Your task to perform on an android device: Toggle the flashlight Image 0: 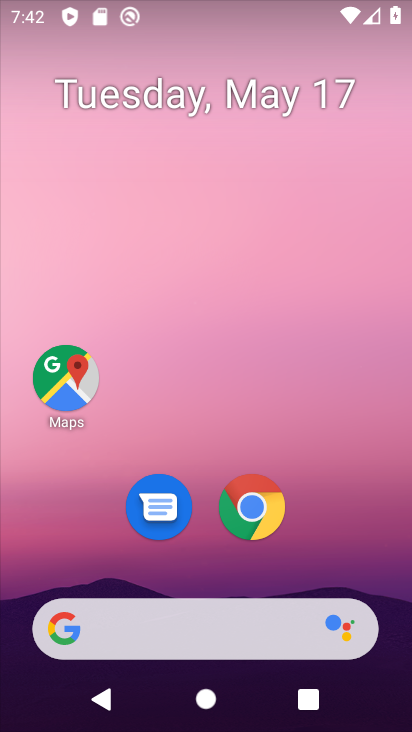
Step 0: drag from (280, 684) to (280, 79)
Your task to perform on an android device: Toggle the flashlight Image 1: 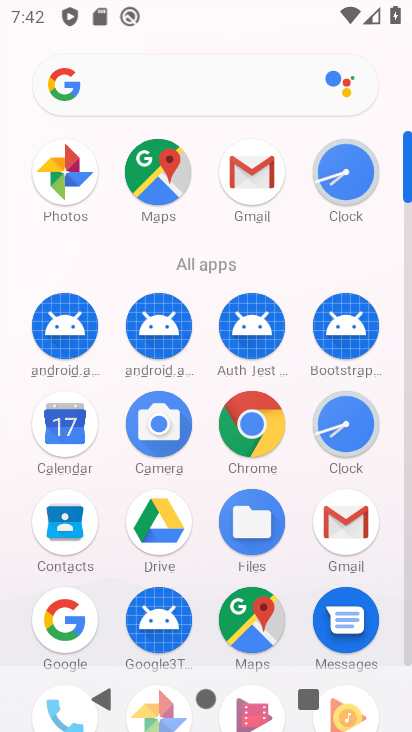
Step 1: task complete